Your task to perform on an android device: Open Google Chrome Image 0: 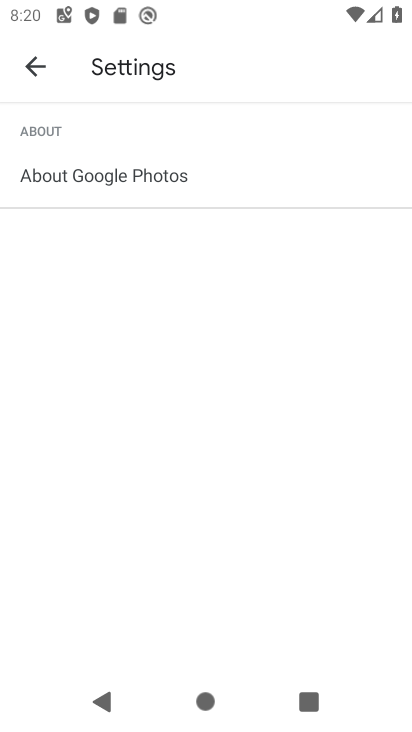
Step 0: press home button
Your task to perform on an android device: Open Google Chrome Image 1: 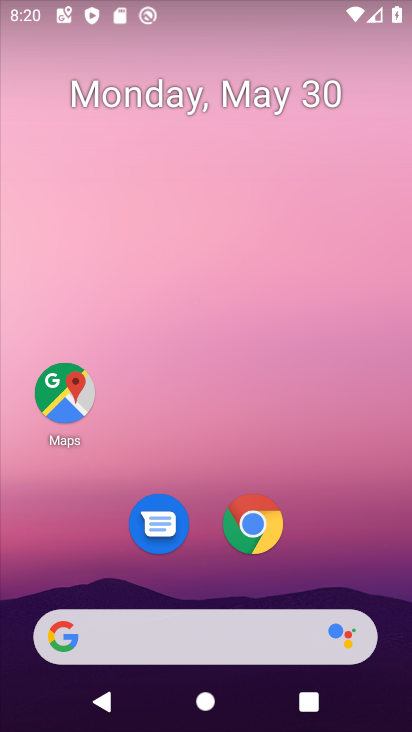
Step 1: click (268, 519)
Your task to perform on an android device: Open Google Chrome Image 2: 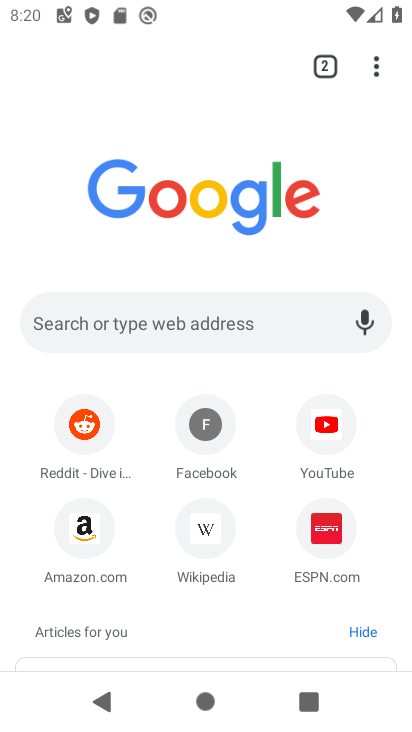
Step 2: task complete